Your task to perform on an android device: Search for sushi restaurants on Maps Image 0: 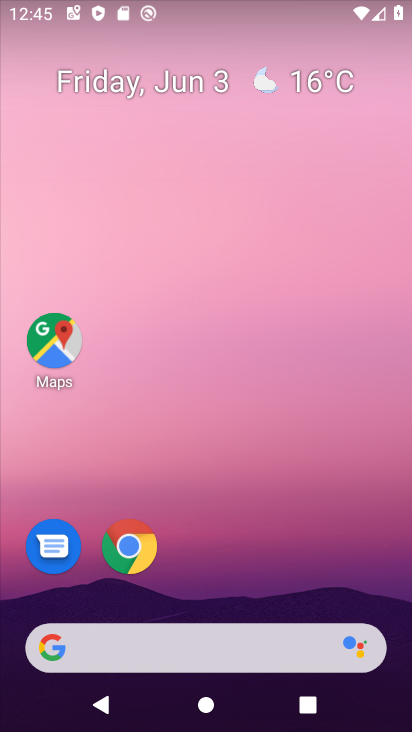
Step 0: click (55, 342)
Your task to perform on an android device: Search for sushi restaurants on Maps Image 1: 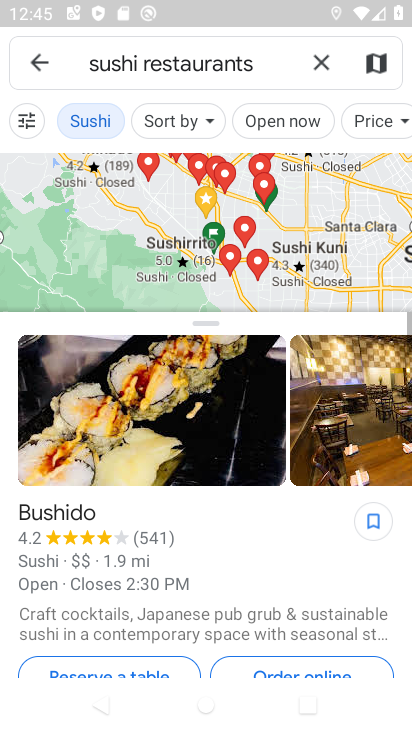
Step 1: click (318, 57)
Your task to perform on an android device: Search for sushi restaurants on Maps Image 2: 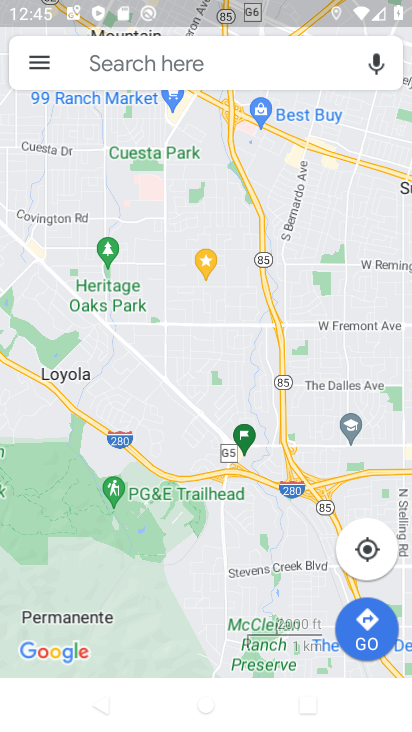
Step 2: click (211, 64)
Your task to perform on an android device: Search for sushi restaurants on Maps Image 3: 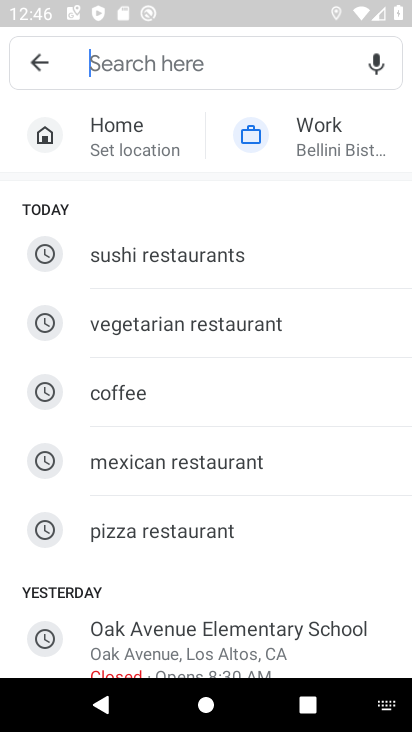
Step 3: click (146, 252)
Your task to perform on an android device: Search for sushi restaurants on Maps Image 4: 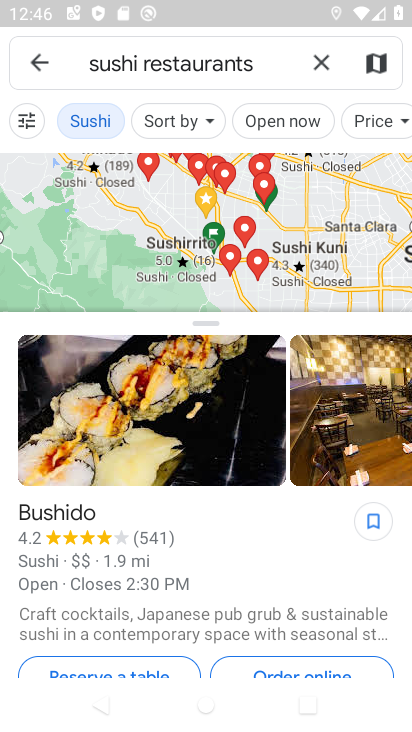
Step 4: task complete